Your task to perform on an android device: move a message to another label in the gmail app Image 0: 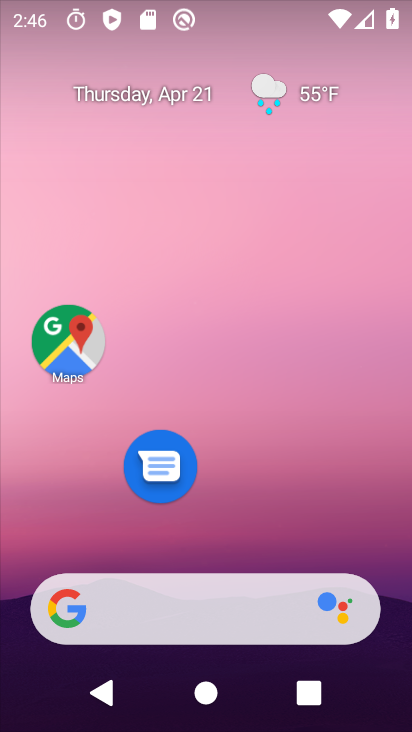
Step 0: drag from (294, 553) to (282, 3)
Your task to perform on an android device: move a message to another label in the gmail app Image 1: 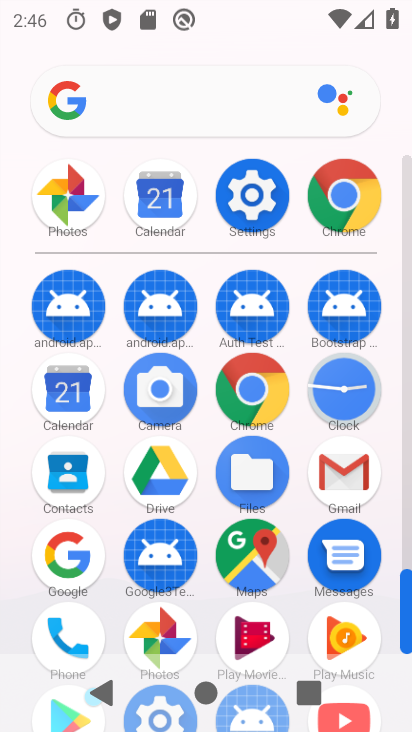
Step 1: click (342, 456)
Your task to perform on an android device: move a message to another label in the gmail app Image 2: 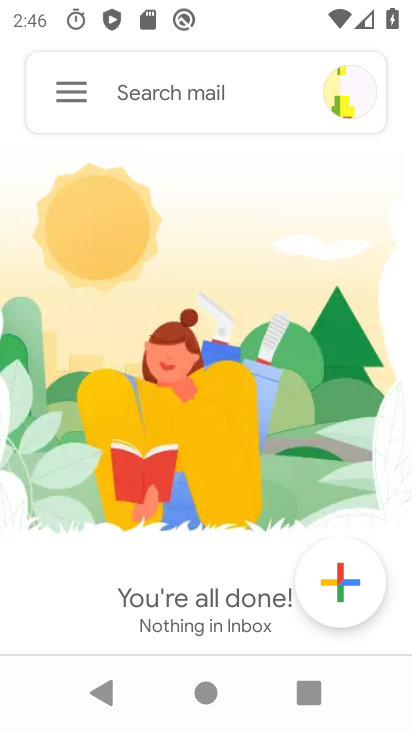
Step 2: click (66, 85)
Your task to perform on an android device: move a message to another label in the gmail app Image 3: 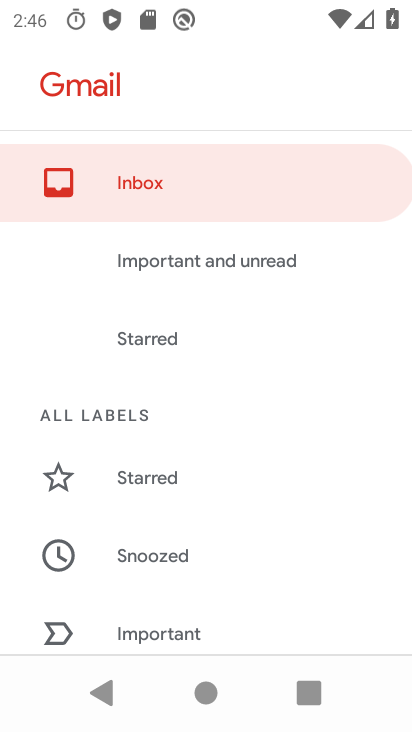
Step 3: task complete